Your task to perform on an android device: See recent photos Image 0: 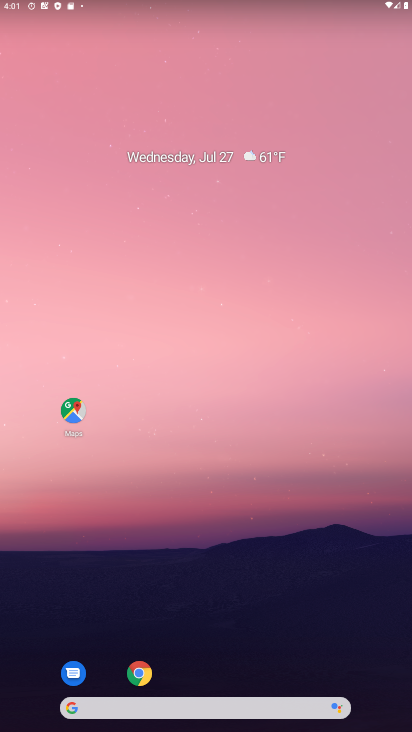
Step 0: drag from (29, 698) to (253, 219)
Your task to perform on an android device: See recent photos Image 1: 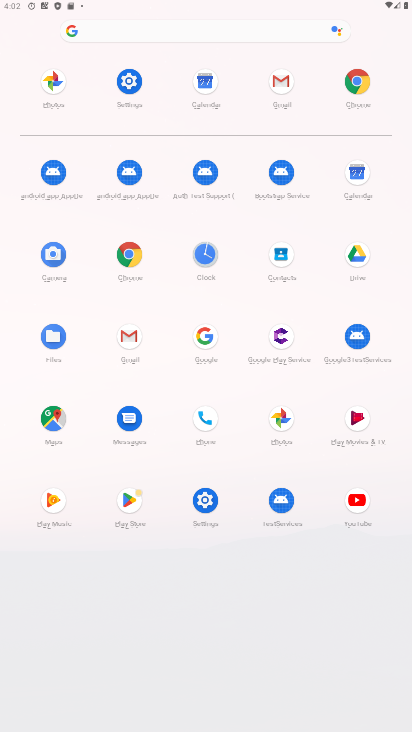
Step 1: click (277, 421)
Your task to perform on an android device: See recent photos Image 2: 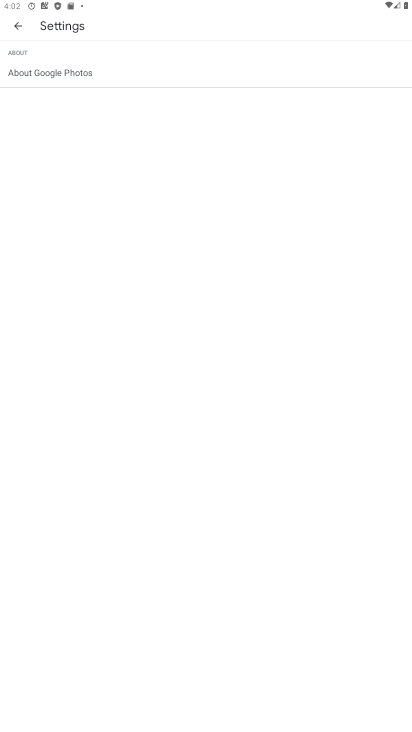
Step 2: click (23, 24)
Your task to perform on an android device: See recent photos Image 3: 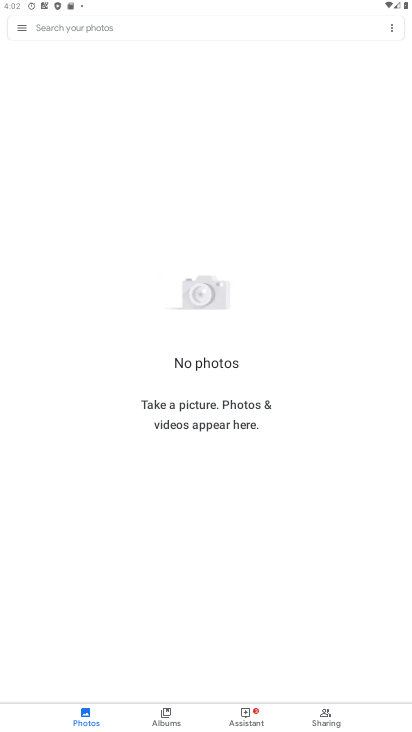
Step 3: task complete